Your task to perform on an android device: open chrome privacy settings Image 0: 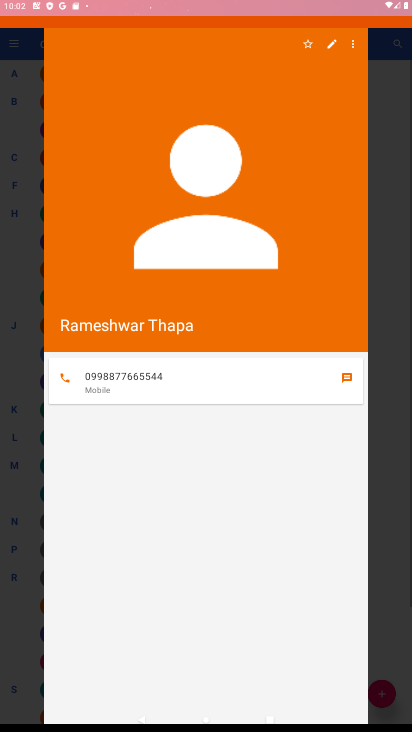
Step 0: drag from (223, 638) to (201, 470)
Your task to perform on an android device: open chrome privacy settings Image 1: 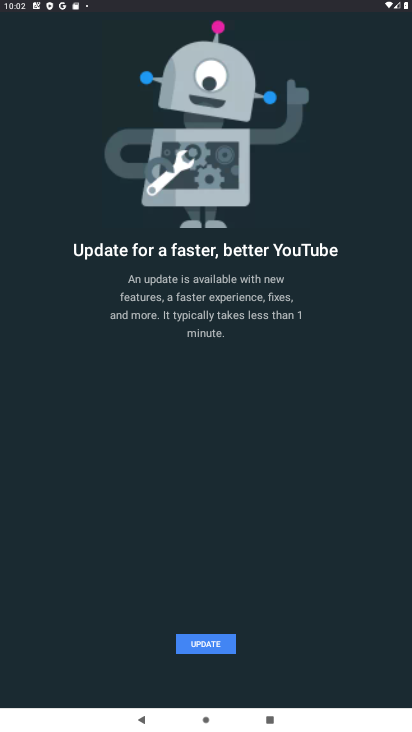
Step 1: press home button
Your task to perform on an android device: open chrome privacy settings Image 2: 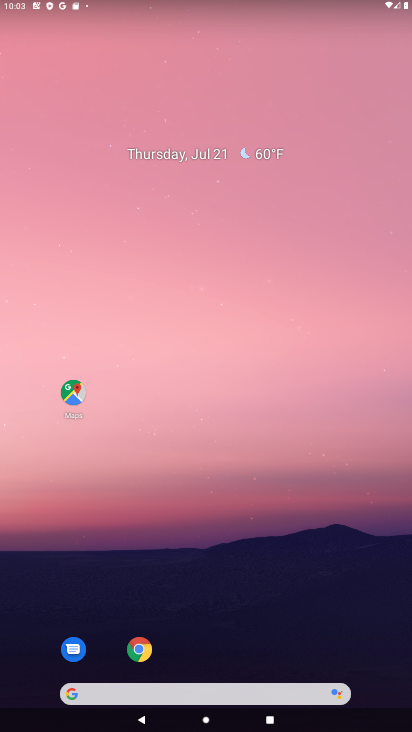
Step 2: click (139, 649)
Your task to perform on an android device: open chrome privacy settings Image 3: 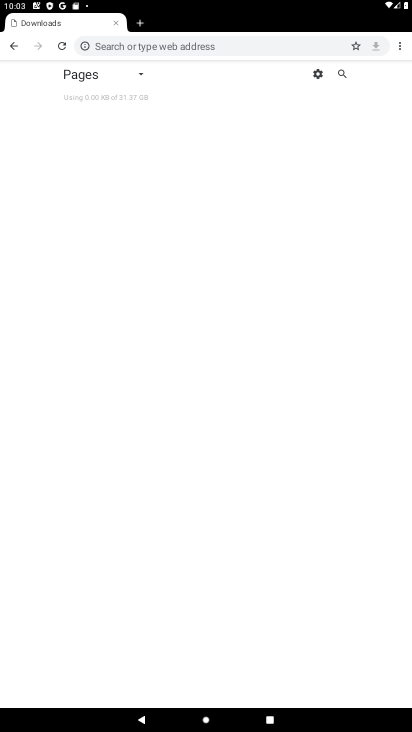
Step 3: click (399, 46)
Your task to perform on an android device: open chrome privacy settings Image 4: 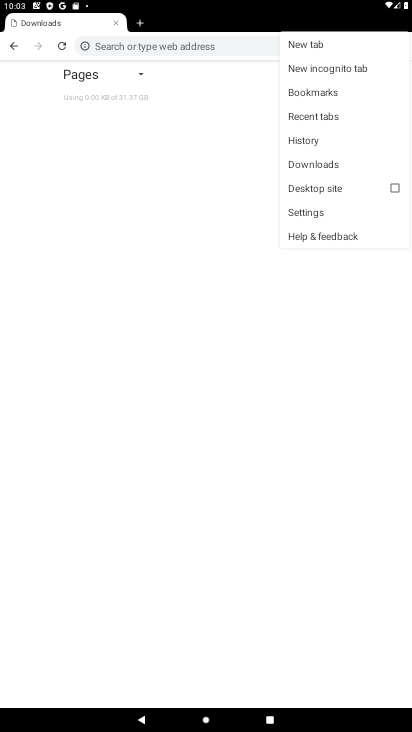
Step 4: click (309, 213)
Your task to perform on an android device: open chrome privacy settings Image 5: 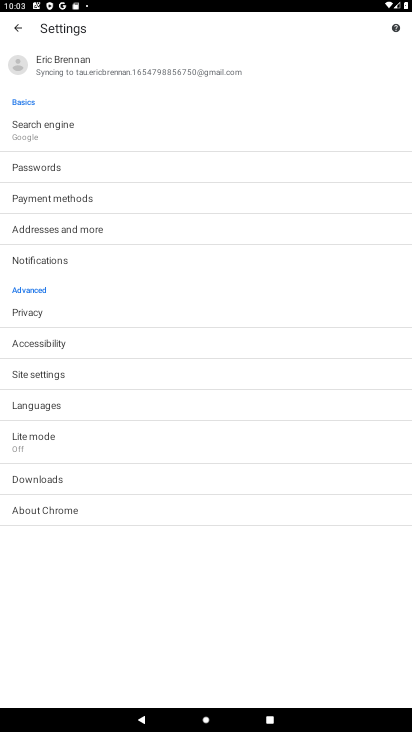
Step 5: click (30, 316)
Your task to perform on an android device: open chrome privacy settings Image 6: 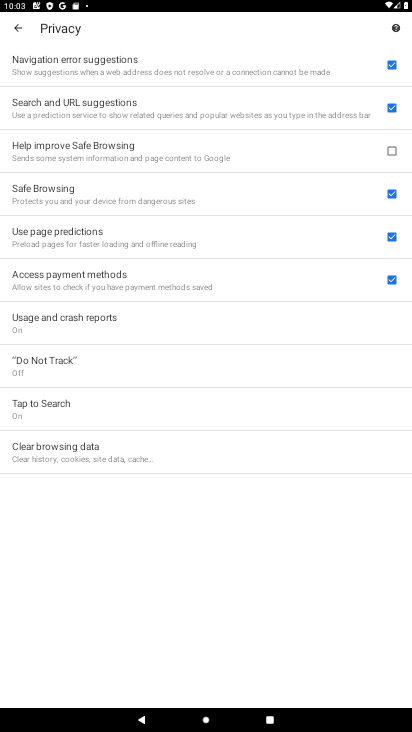
Step 6: task complete